Your task to perform on an android device: empty trash in google photos Image 0: 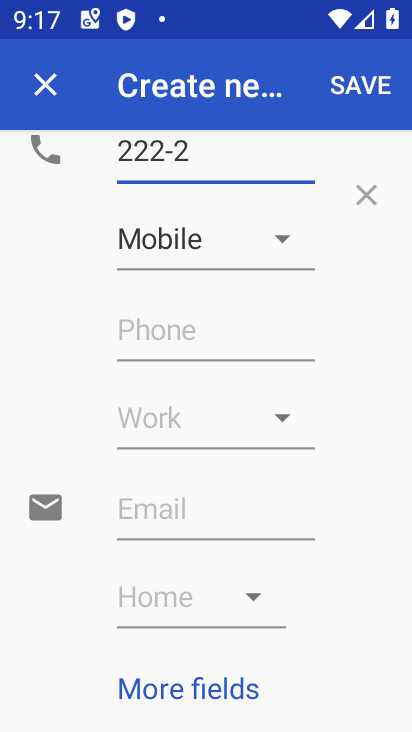
Step 0: press home button
Your task to perform on an android device: empty trash in google photos Image 1: 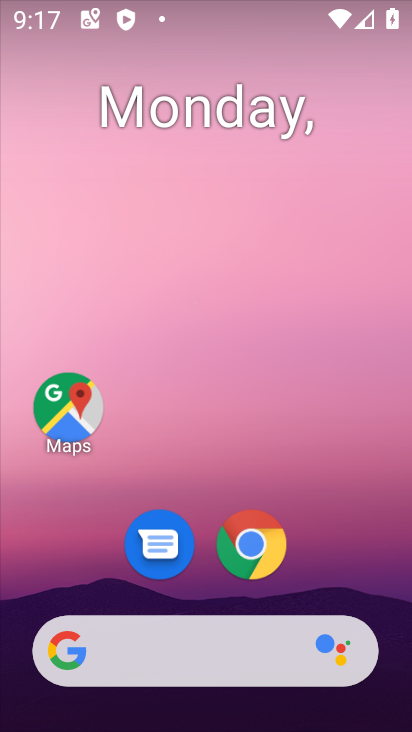
Step 1: drag from (306, 531) to (273, 33)
Your task to perform on an android device: empty trash in google photos Image 2: 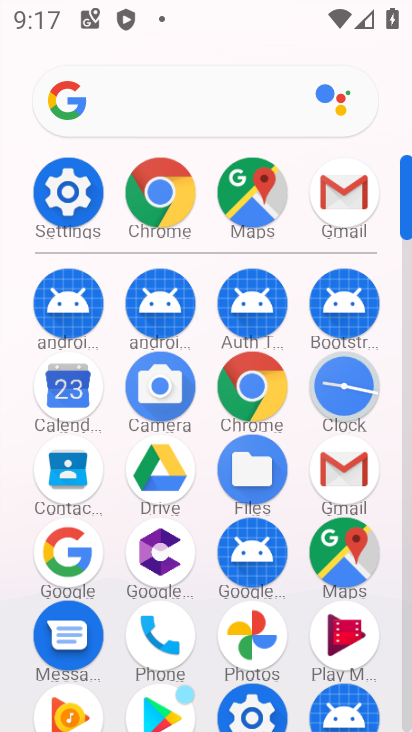
Step 2: click (247, 638)
Your task to perform on an android device: empty trash in google photos Image 3: 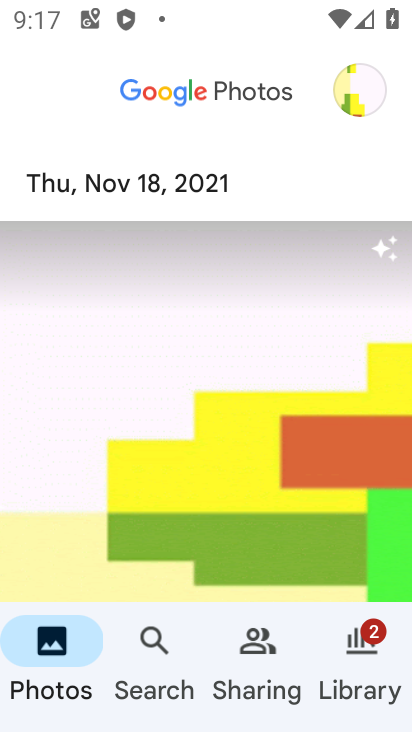
Step 3: click (353, 656)
Your task to perform on an android device: empty trash in google photos Image 4: 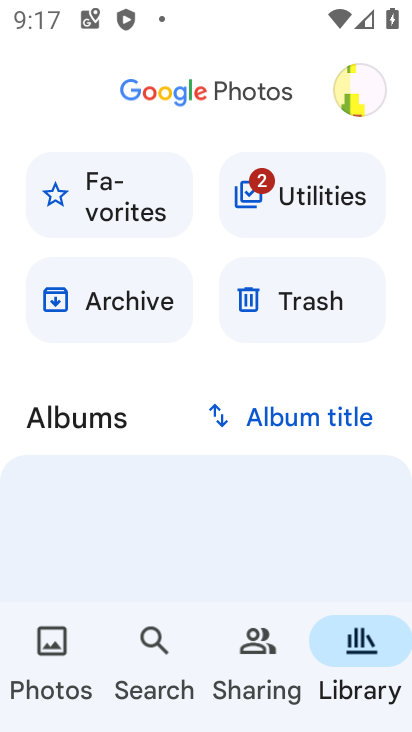
Step 4: click (295, 299)
Your task to perform on an android device: empty trash in google photos Image 5: 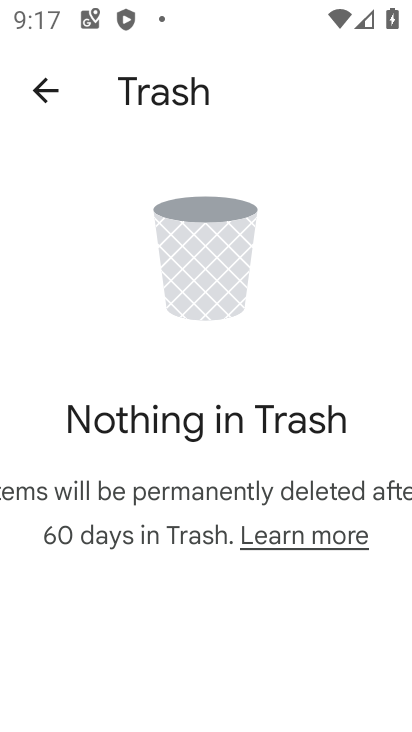
Step 5: task complete